Your task to perform on an android device: Go to eBay Image 0: 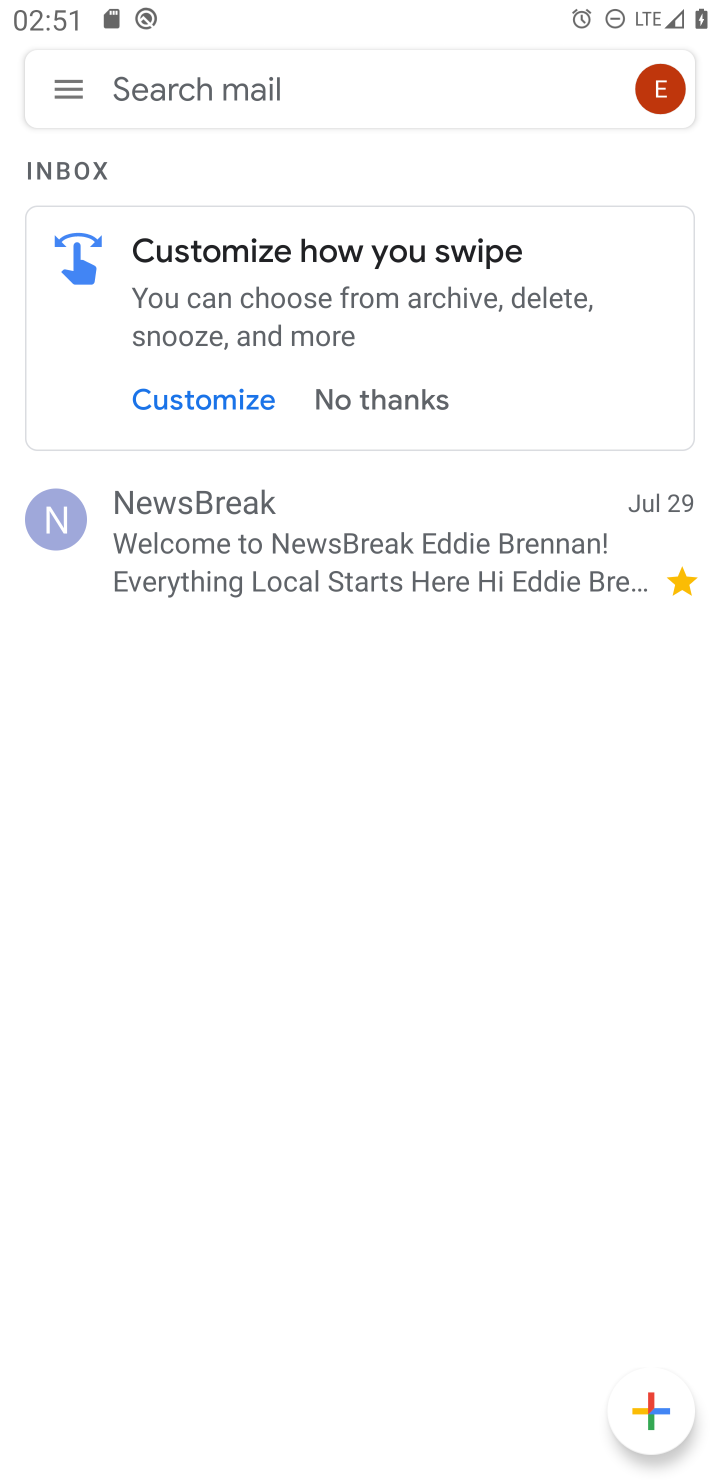
Step 0: press home button
Your task to perform on an android device: Go to eBay Image 1: 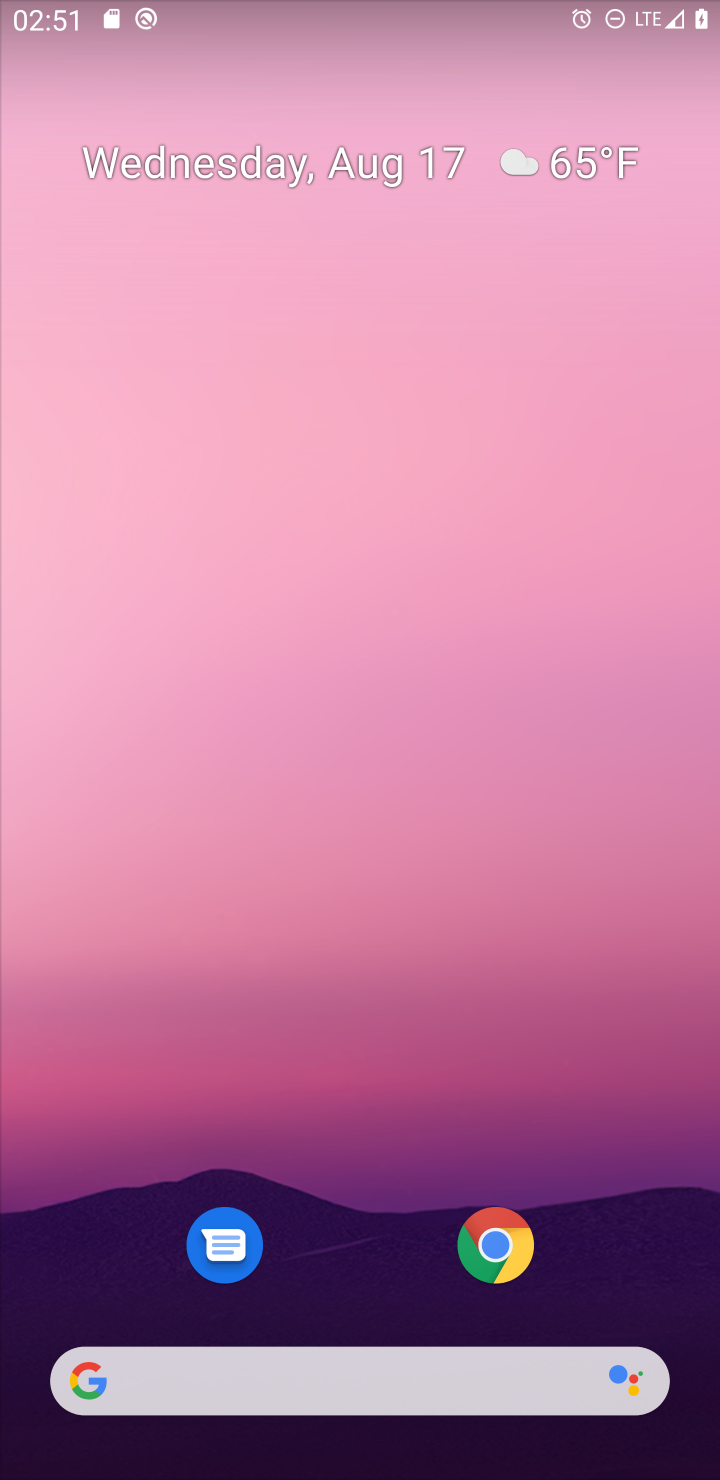
Step 1: drag from (379, 1309) to (314, 133)
Your task to perform on an android device: Go to eBay Image 2: 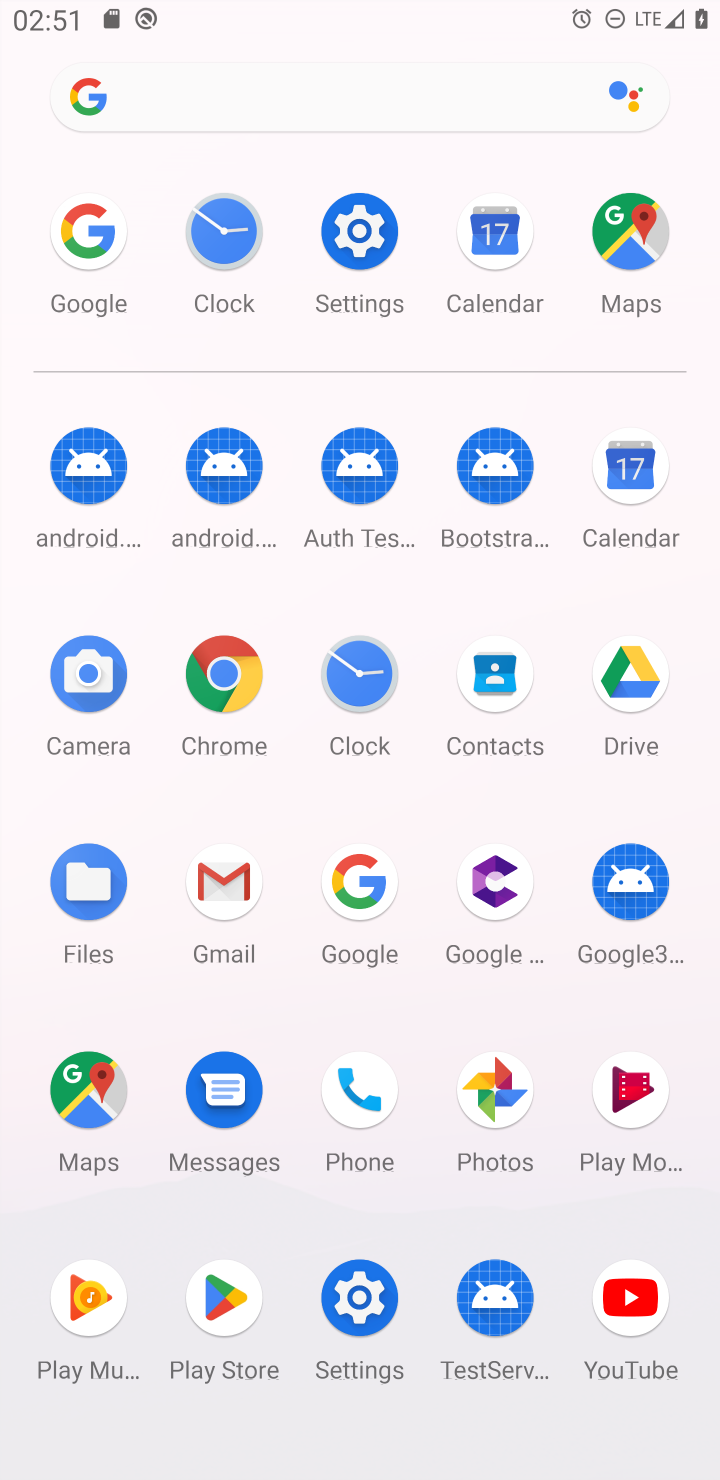
Step 2: click (224, 673)
Your task to perform on an android device: Go to eBay Image 3: 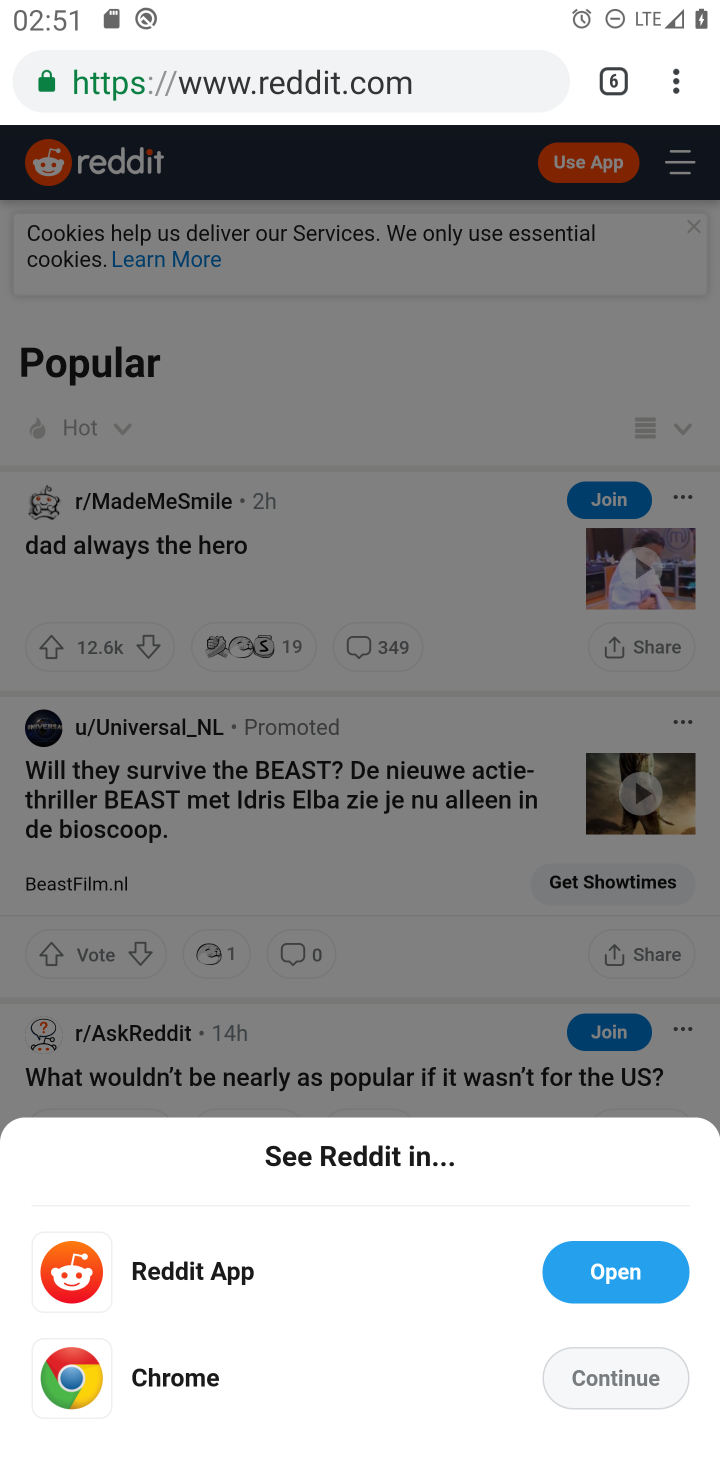
Step 3: click (677, 87)
Your task to perform on an android device: Go to eBay Image 4: 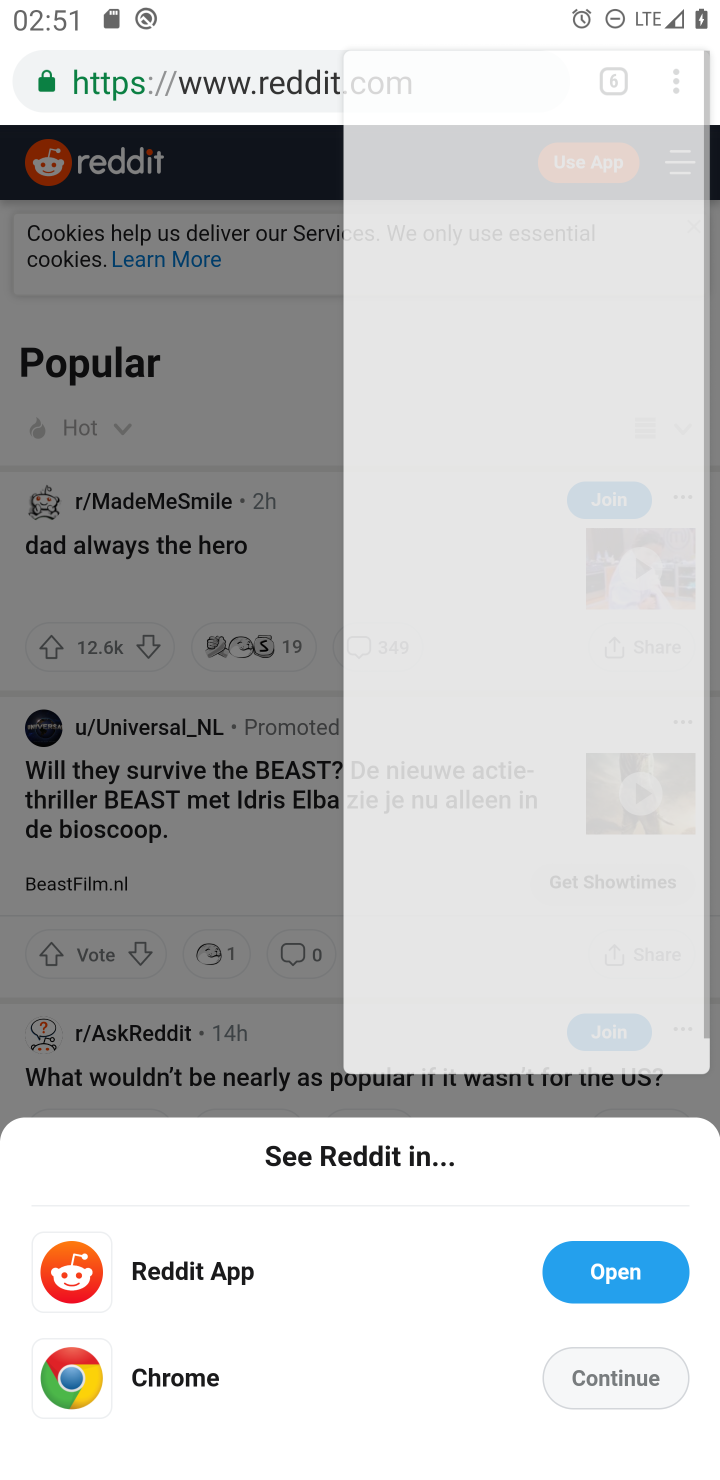
Step 4: drag from (675, 87) to (446, 289)
Your task to perform on an android device: Go to eBay Image 5: 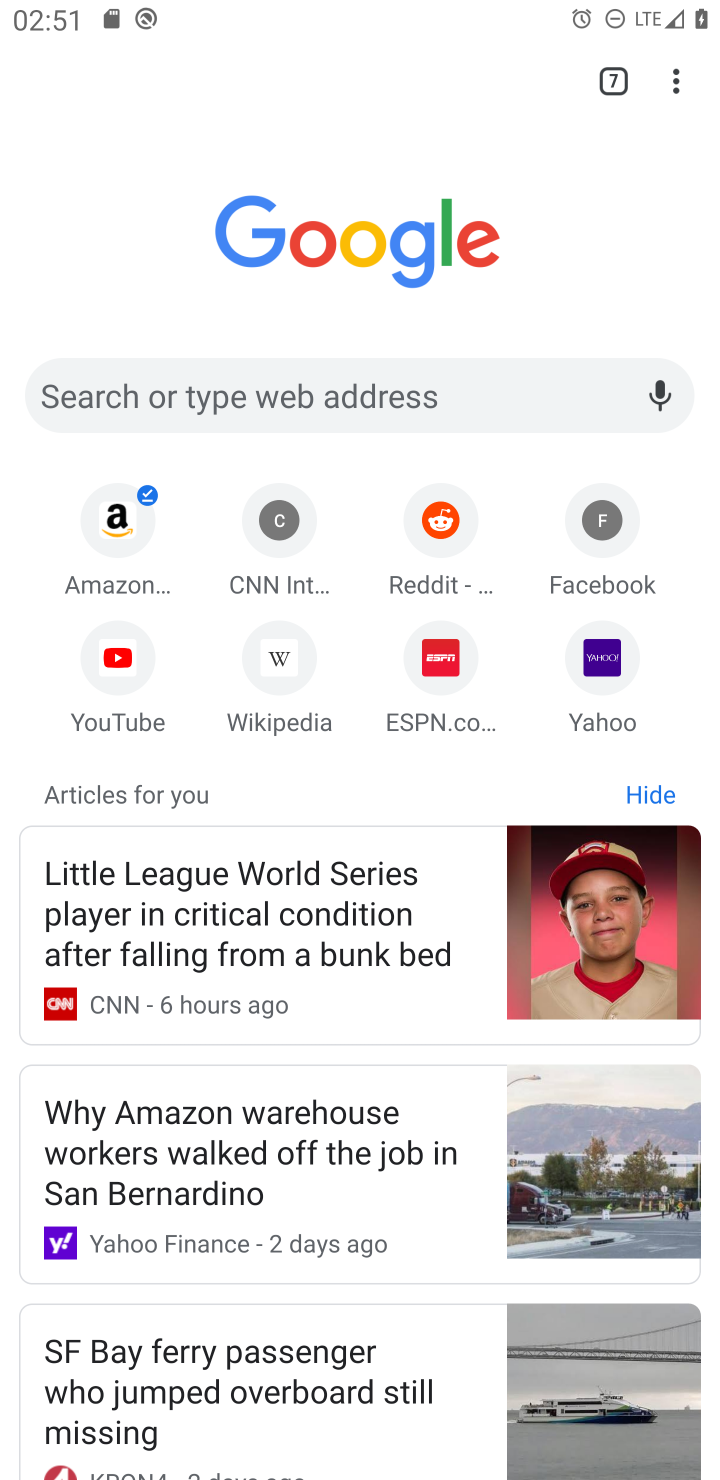
Step 5: click (331, 390)
Your task to perform on an android device: Go to eBay Image 6: 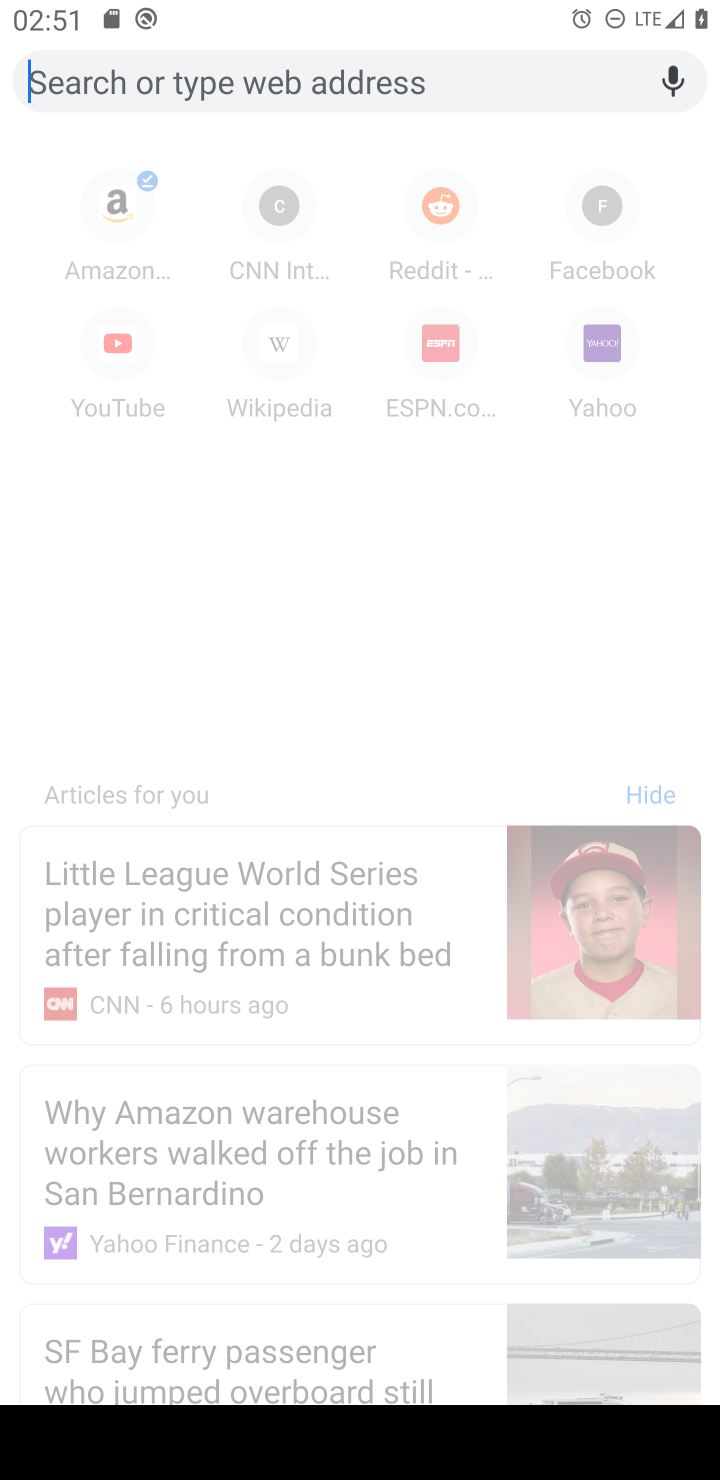
Step 6: type "eBay"
Your task to perform on an android device: Go to eBay Image 7: 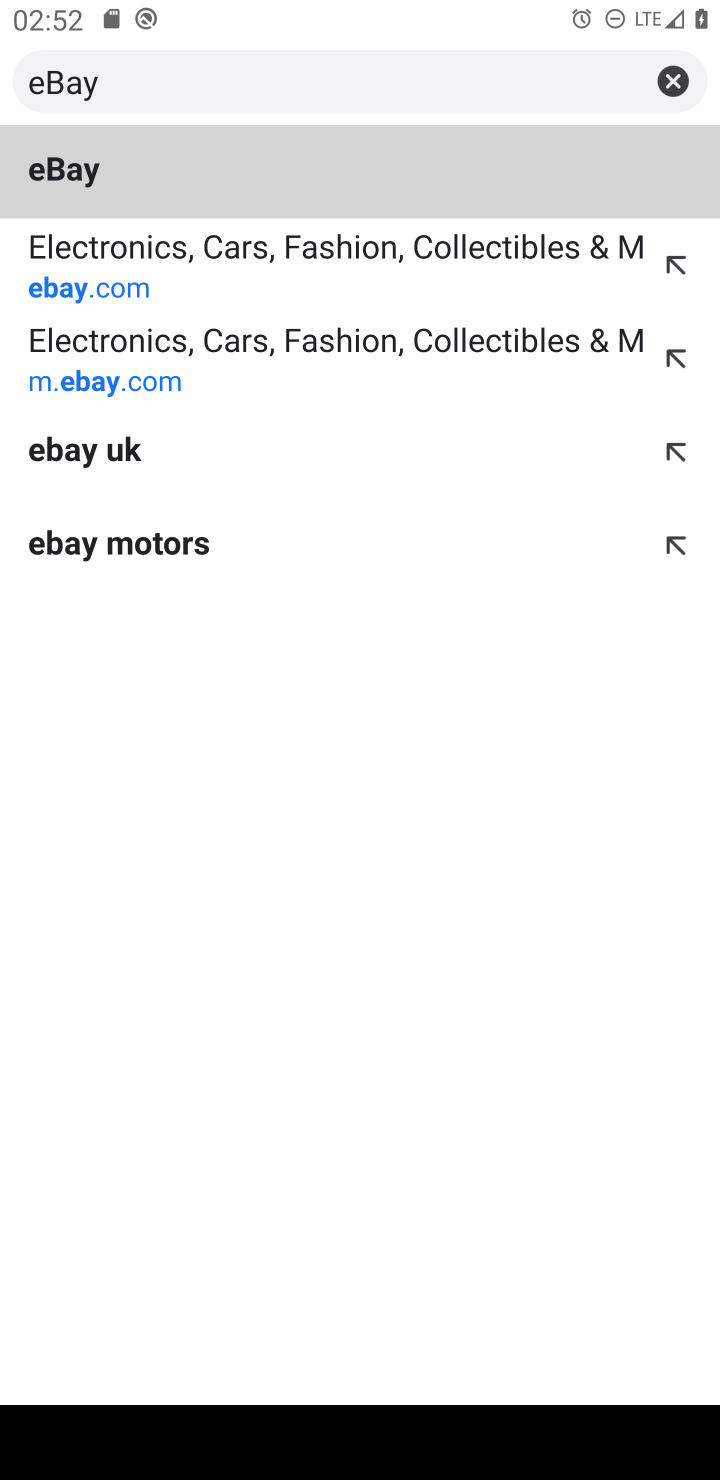
Step 7: click (65, 173)
Your task to perform on an android device: Go to eBay Image 8: 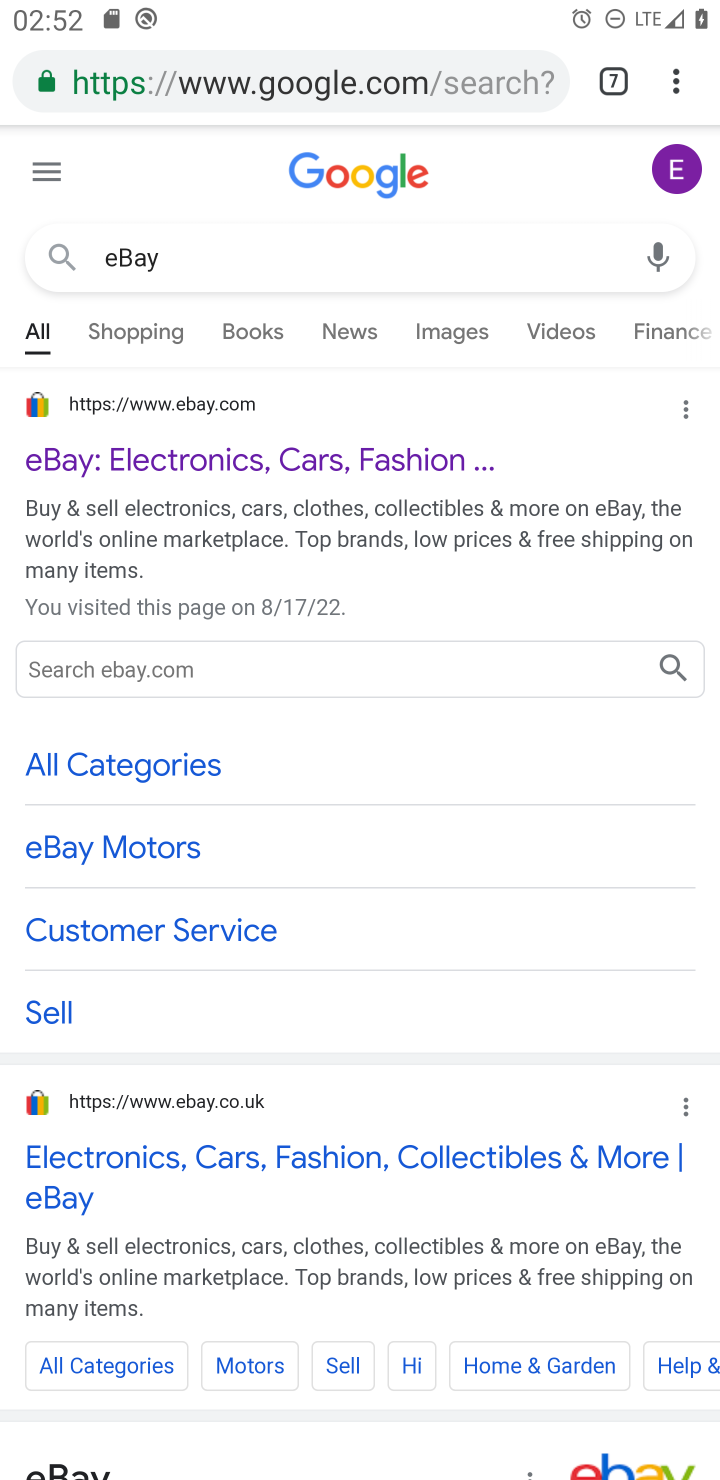
Step 8: click (185, 447)
Your task to perform on an android device: Go to eBay Image 9: 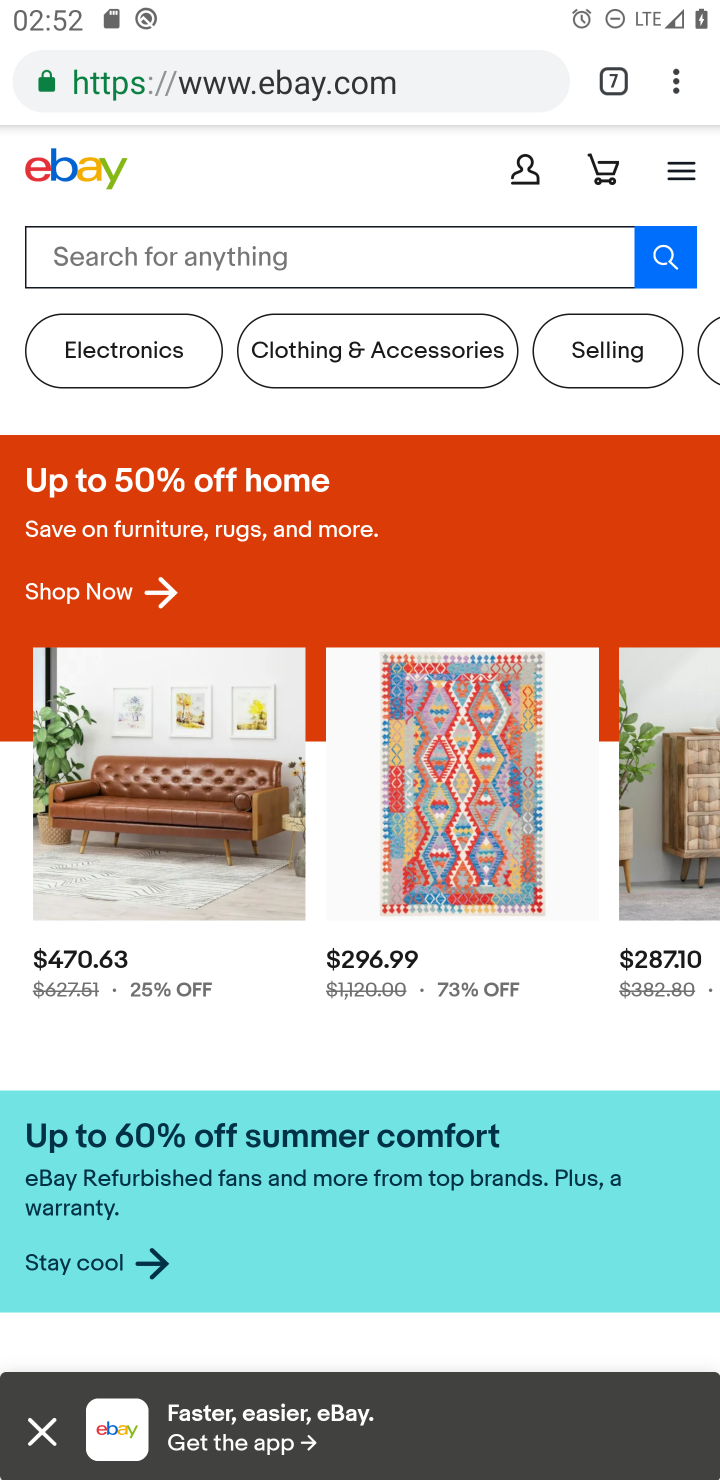
Step 9: task complete